Your task to perform on an android device: Go to internet settings Image 0: 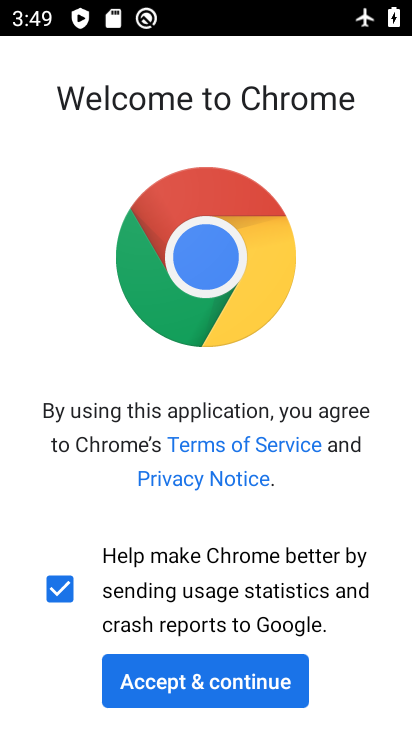
Step 0: press back button
Your task to perform on an android device: Go to internet settings Image 1: 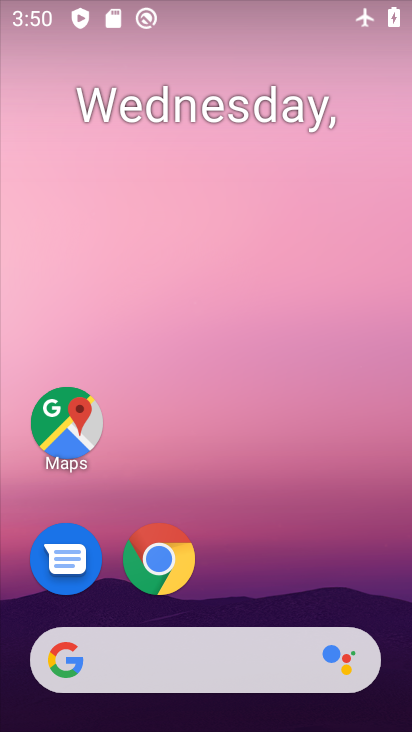
Step 1: drag from (228, 558) to (304, 1)
Your task to perform on an android device: Go to internet settings Image 2: 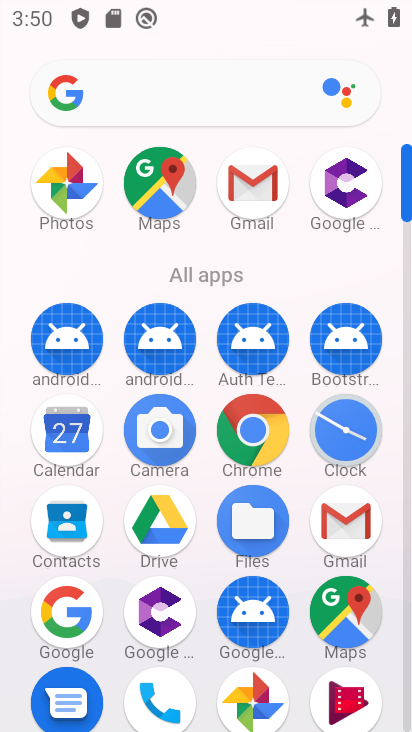
Step 2: drag from (172, 615) to (262, 83)
Your task to perform on an android device: Go to internet settings Image 3: 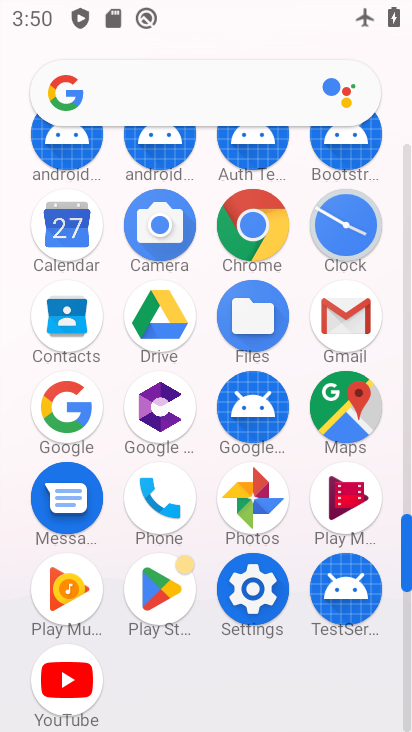
Step 3: click (257, 596)
Your task to perform on an android device: Go to internet settings Image 4: 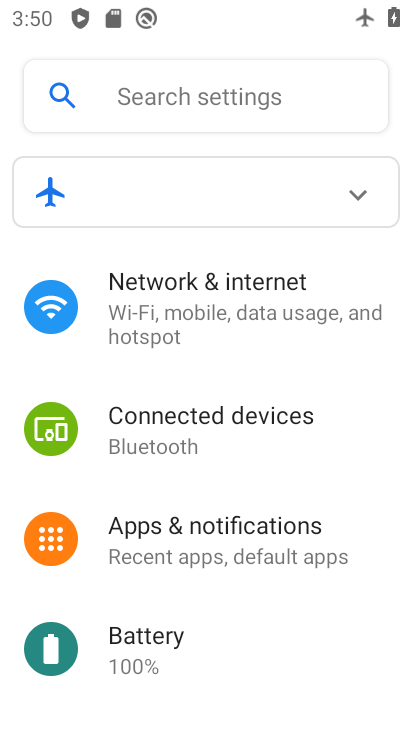
Step 4: click (243, 328)
Your task to perform on an android device: Go to internet settings Image 5: 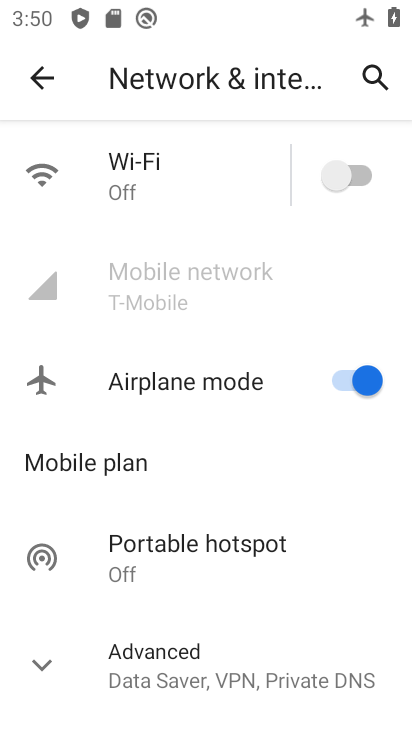
Step 5: task complete